Your task to perform on an android device: Open privacy settings Image 0: 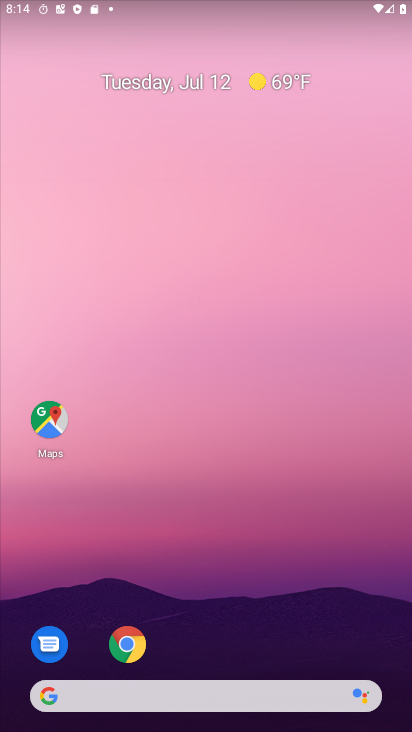
Step 0: drag from (220, 627) to (277, 38)
Your task to perform on an android device: Open privacy settings Image 1: 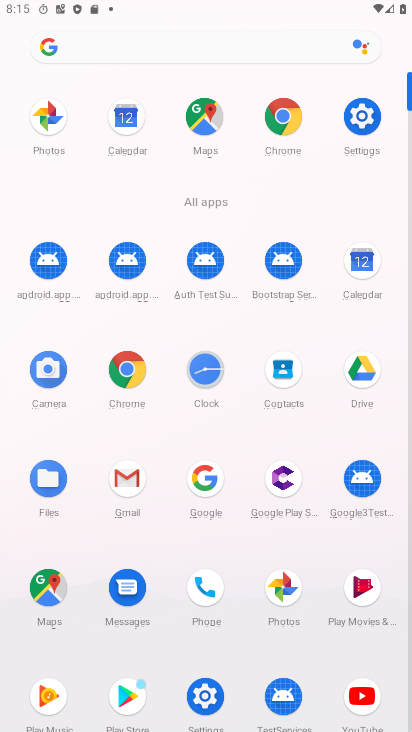
Step 1: click (363, 109)
Your task to perform on an android device: Open privacy settings Image 2: 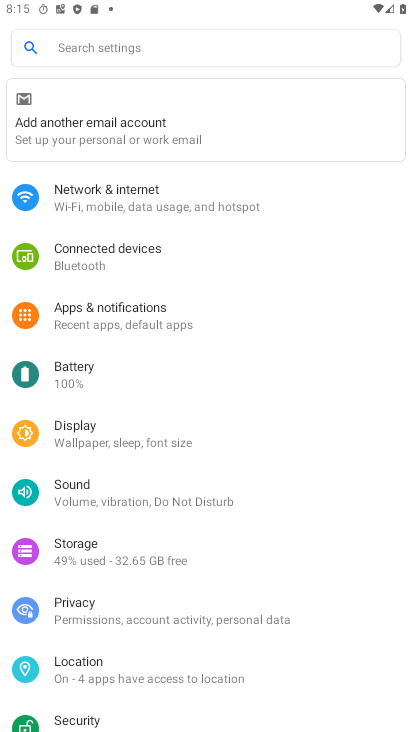
Step 2: click (109, 600)
Your task to perform on an android device: Open privacy settings Image 3: 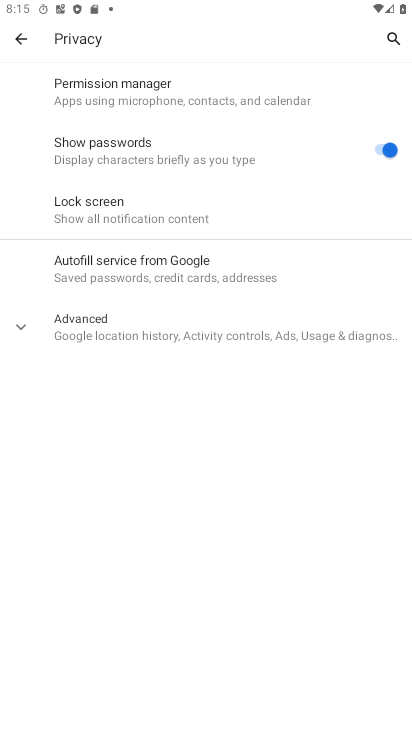
Step 3: click (22, 320)
Your task to perform on an android device: Open privacy settings Image 4: 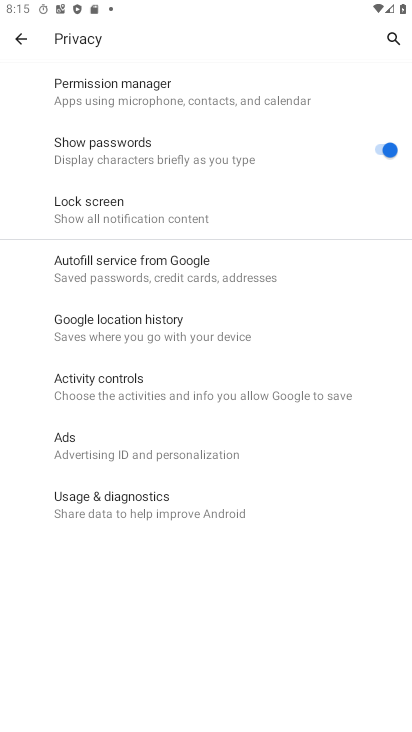
Step 4: task complete